Your task to perform on an android device: Open Youtube and go to "Your channel" Image 0: 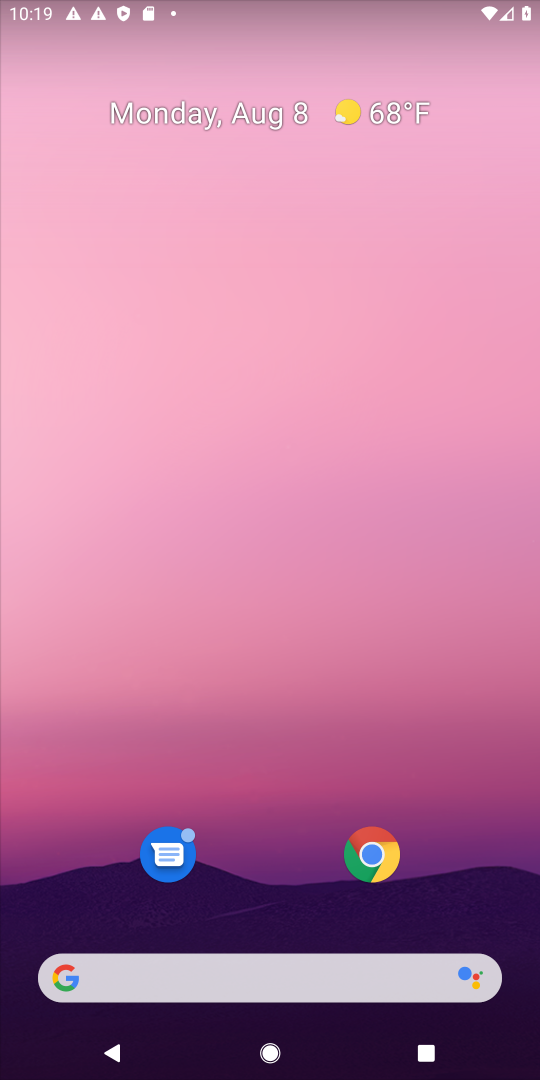
Step 0: drag from (296, 495) to (304, 221)
Your task to perform on an android device: Open Youtube and go to "Your channel" Image 1: 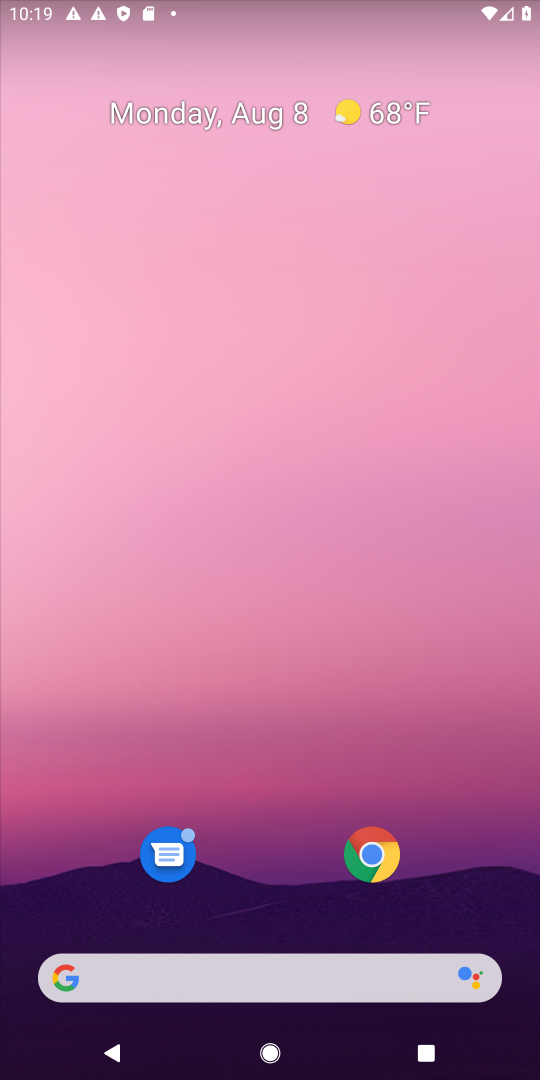
Step 1: drag from (254, 804) to (360, 133)
Your task to perform on an android device: Open Youtube and go to "Your channel" Image 2: 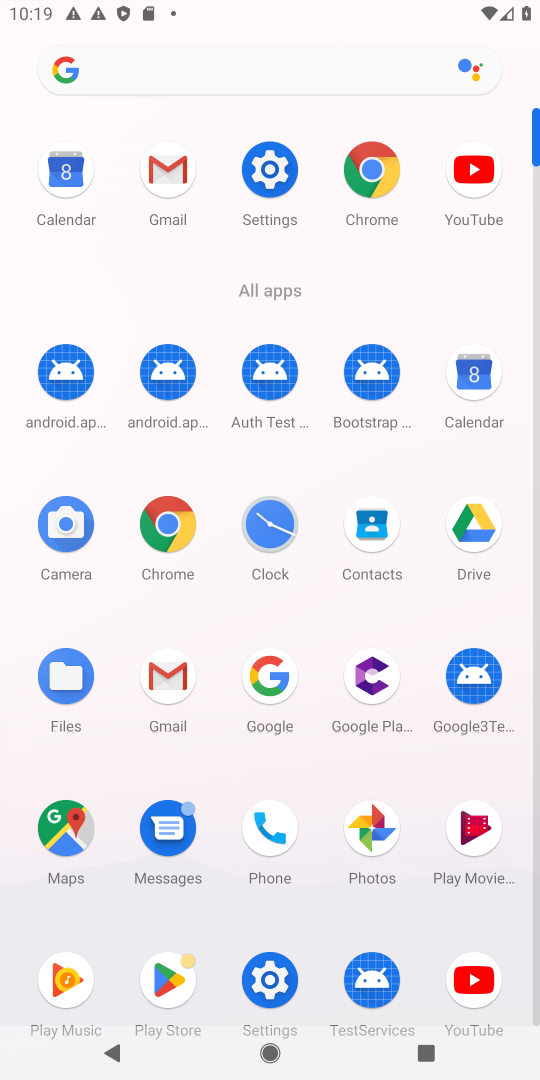
Step 2: click (479, 195)
Your task to perform on an android device: Open Youtube and go to "Your channel" Image 3: 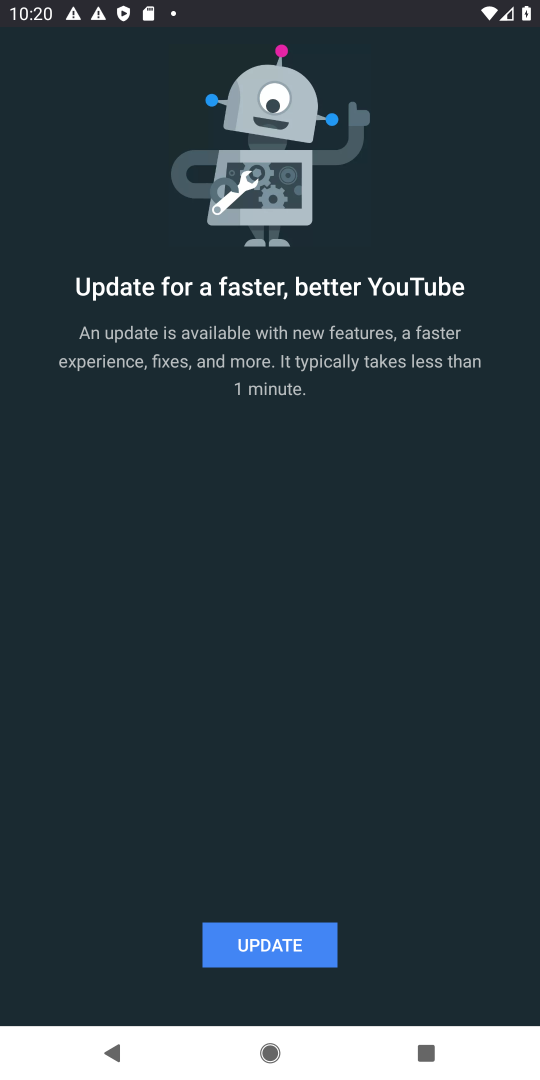
Step 3: task complete